Your task to perform on an android device: Open Yahoo.com Image 0: 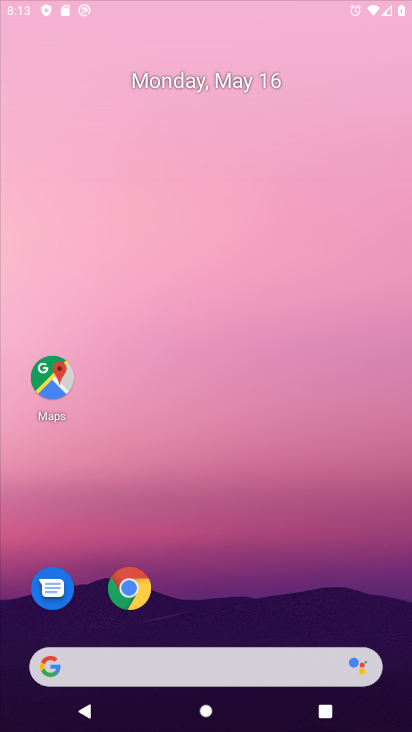
Step 0: press back button
Your task to perform on an android device: Open Yahoo.com Image 1: 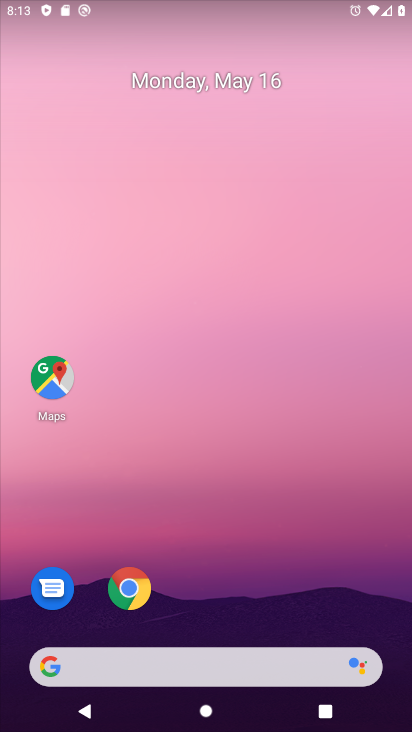
Step 1: click (174, 18)
Your task to perform on an android device: Open Yahoo.com Image 2: 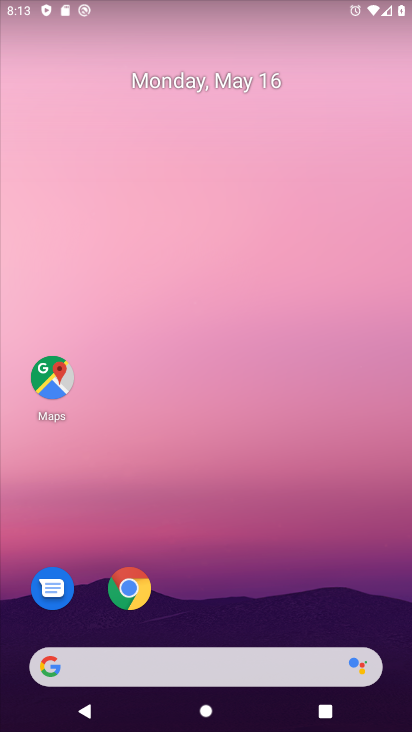
Step 2: click (210, 234)
Your task to perform on an android device: Open Yahoo.com Image 3: 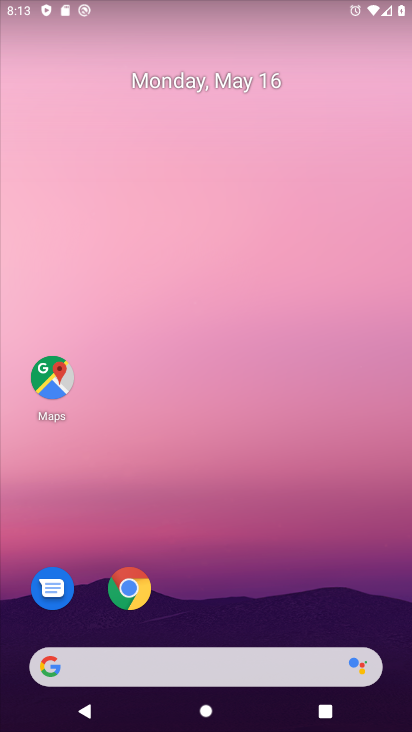
Step 3: click (48, 112)
Your task to perform on an android device: Open Yahoo.com Image 4: 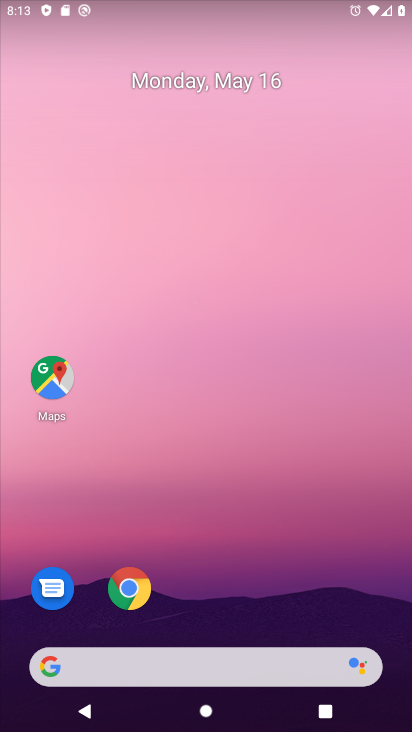
Step 4: drag from (236, 563) to (181, 19)
Your task to perform on an android device: Open Yahoo.com Image 5: 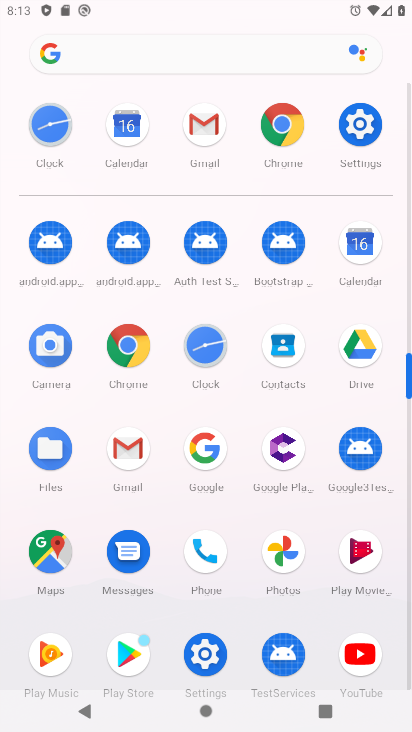
Step 5: drag from (223, 475) to (164, 5)
Your task to perform on an android device: Open Yahoo.com Image 6: 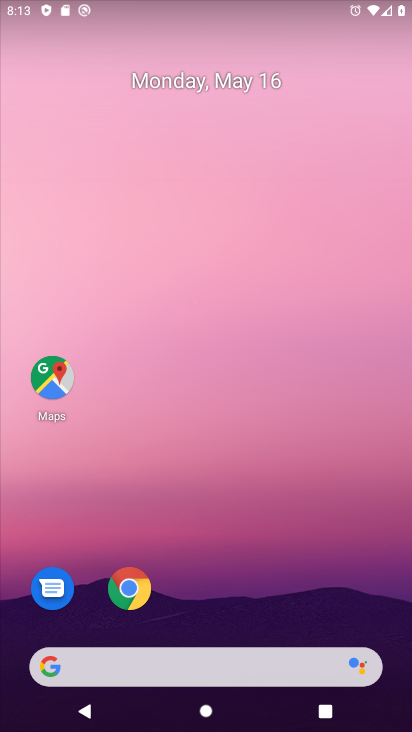
Step 6: drag from (288, 680) to (160, 45)
Your task to perform on an android device: Open Yahoo.com Image 7: 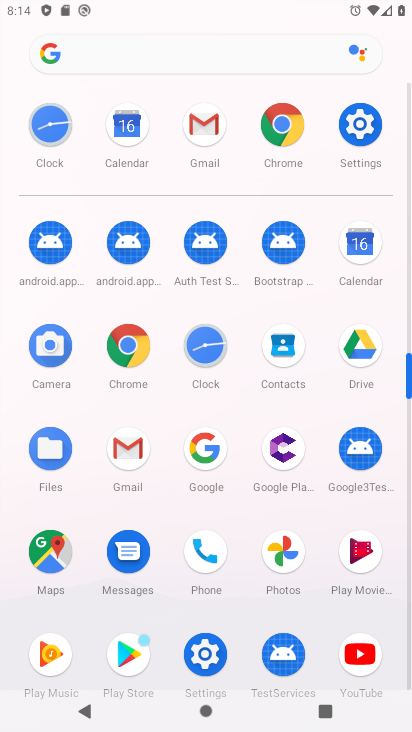
Step 7: click (286, 125)
Your task to perform on an android device: Open Yahoo.com Image 8: 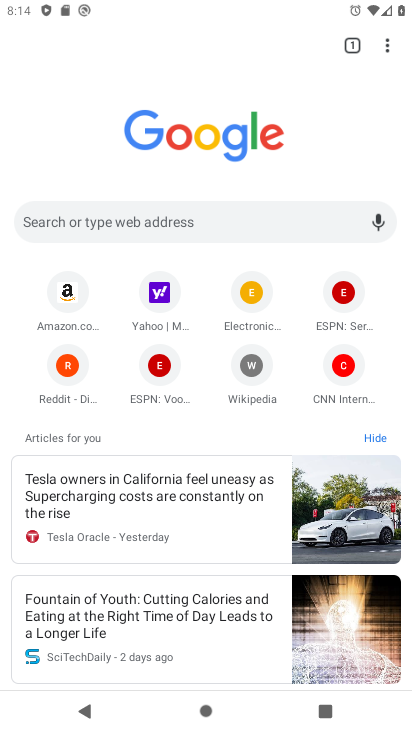
Step 8: click (162, 289)
Your task to perform on an android device: Open Yahoo.com Image 9: 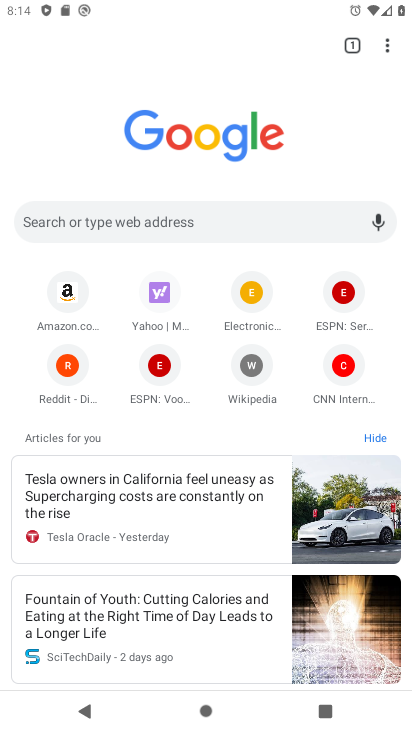
Step 9: click (162, 289)
Your task to perform on an android device: Open Yahoo.com Image 10: 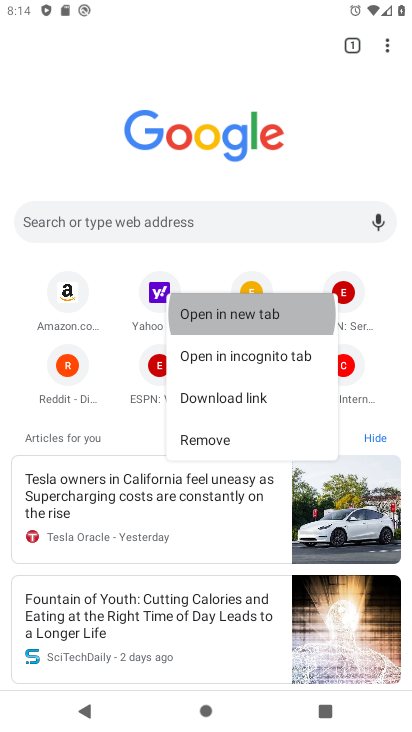
Step 10: click (161, 283)
Your task to perform on an android device: Open Yahoo.com Image 11: 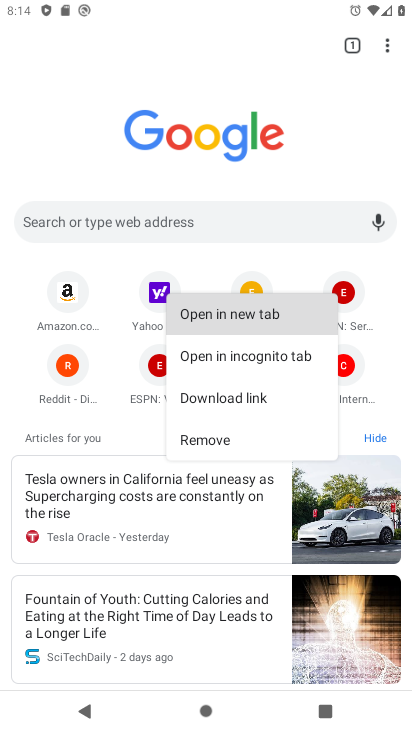
Step 11: click (161, 283)
Your task to perform on an android device: Open Yahoo.com Image 12: 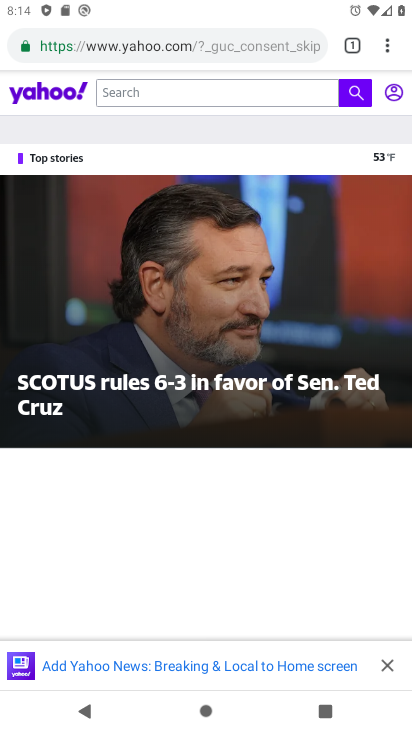
Step 12: task complete